Your task to perform on an android device: Go to notification settings Image 0: 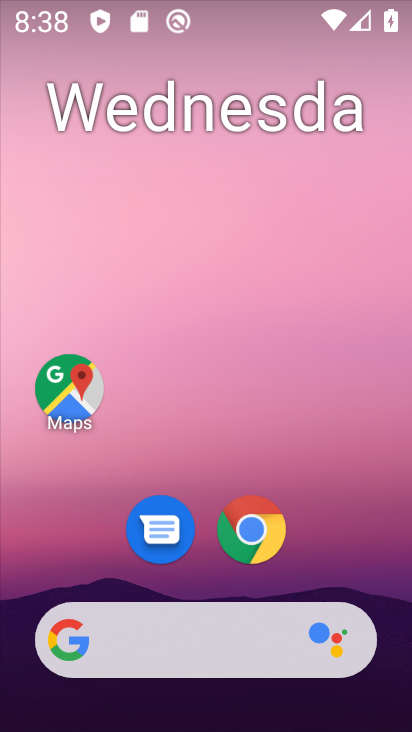
Step 0: drag from (339, 561) to (295, 186)
Your task to perform on an android device: Go to notification settings Image 1: 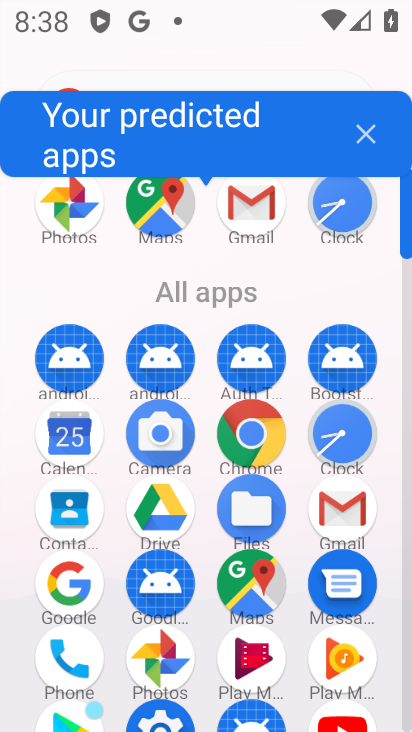
Step 1: drag from (203, 614) to (233, 403)
Your task to perform on an android device: Go to notification settings Image 2: 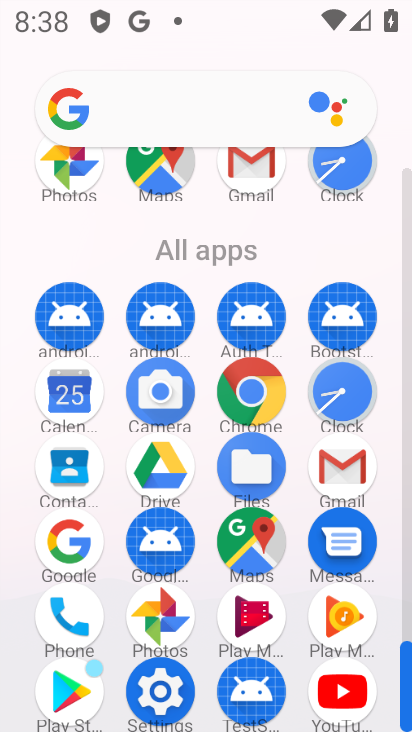
Step 2: click (168, 684)
Your task to perform on an android device: Go to notification settings Image 3: 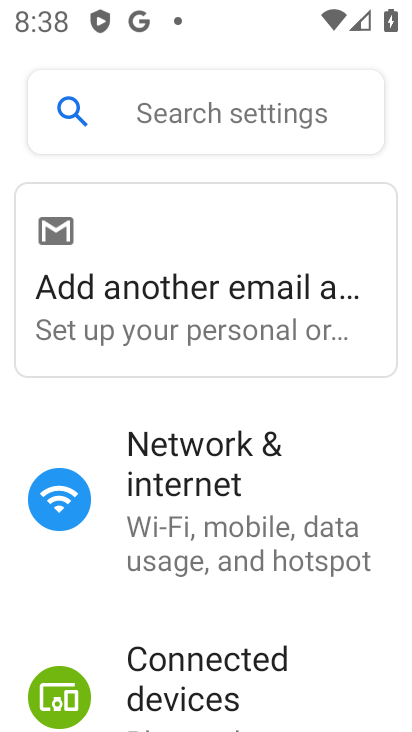
Step 3: drag from (229, 574) to (235, 326)
Your task to perform on an android device: Go to notification settings Image 4: 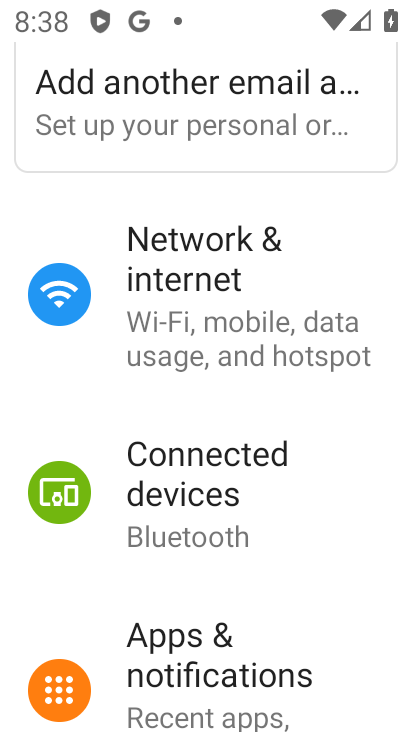
Step 4: click (195, 663)
Your task to perform on an android device: Go to notification settings Image 5: 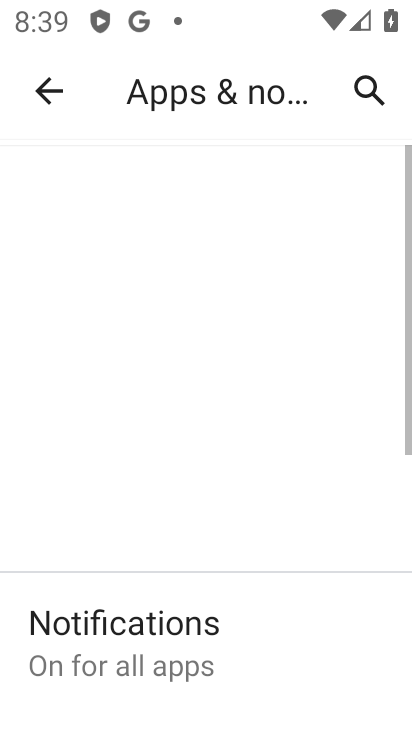
Step 5: drag from (198, 647) to (236, 373)
Your task to perform on an android device: Go to notification settings Image 6: 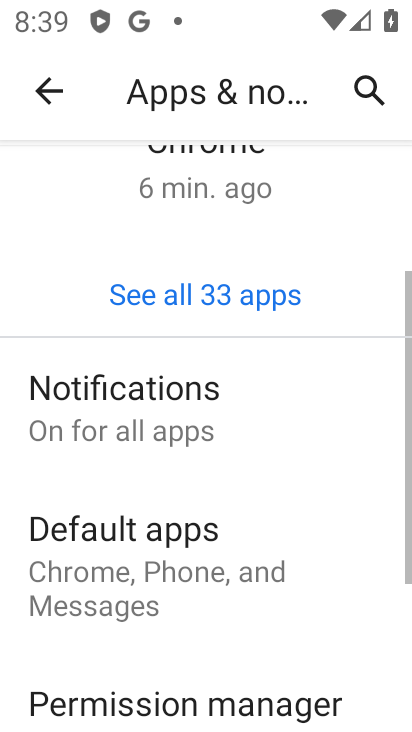
Step 6: click (209, 414)
Your task to perform on an android device: Go to notification settings Image 7: 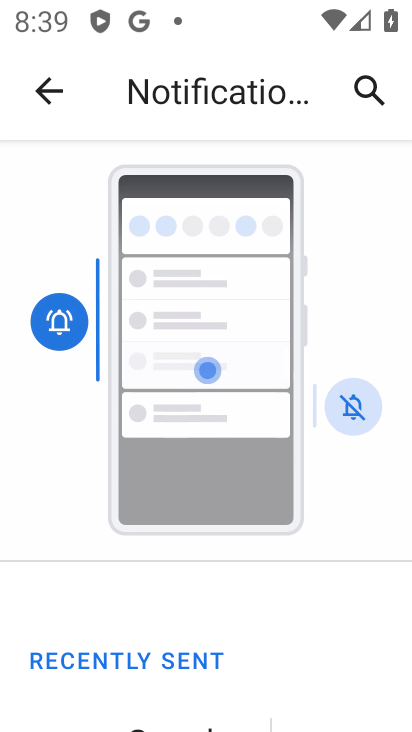
Step 7: task complete